Your task to perform on an android device: turn on improve location accuracy Image 0: 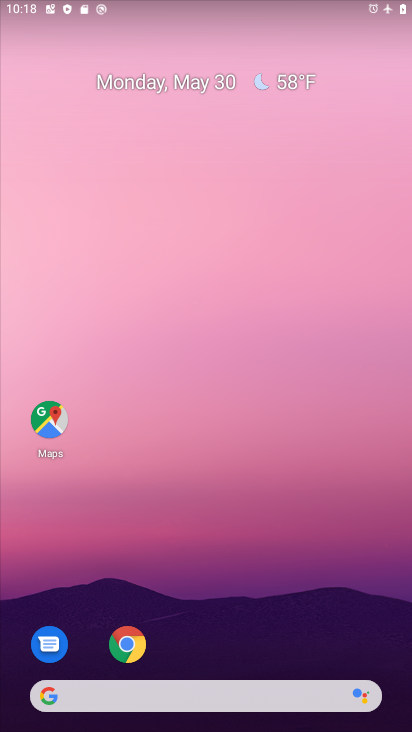
Step 0: drag from (390, 575) to (280, 241)
Your task to perform on an android device: turn on improve location accuracy Image 1: 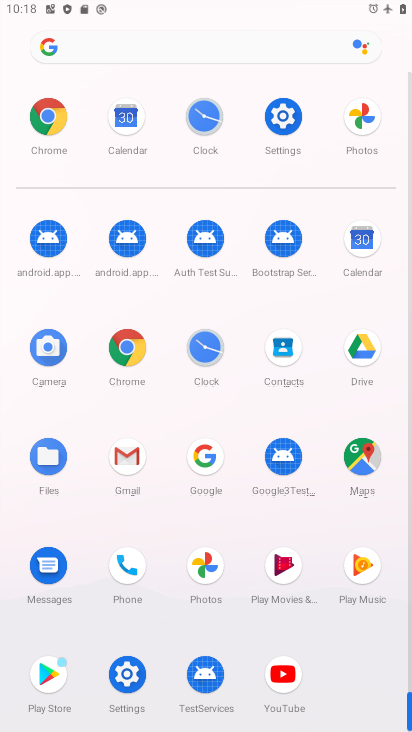
Step 1: click (127, 677)
Your task to perform on an android device: turn on improve location accuracy Image 2: 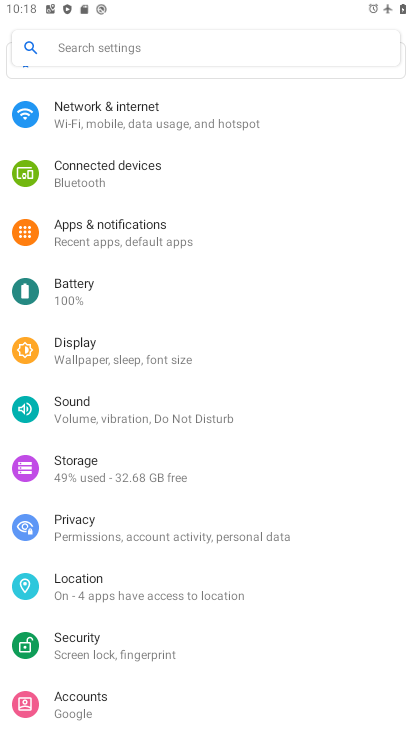
Step 2: click (80, 593)
Your task to perform on an android device: turn on improve location accuracy Image 3: 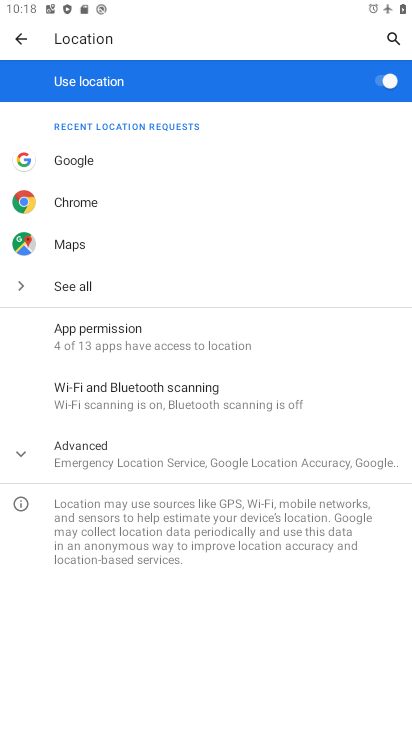
Step 3: click (15, 450)
Your task to perform on an android device: turn on improve location accuracy Image 4: 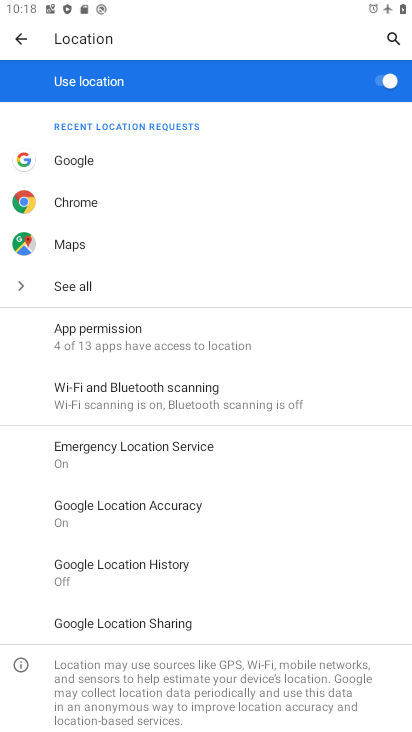
Step 4: click (112, 501)
Your task to perform on an android device: turn on improve location accuracy Image 5: 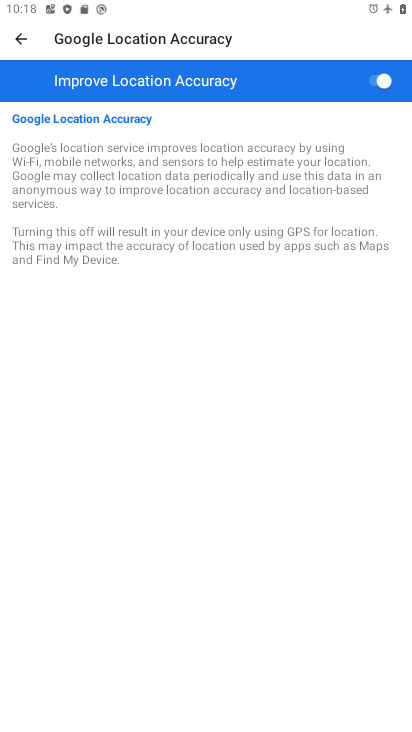
Step 5: task complete